Your task to perform on an android device: check storage Image 0: 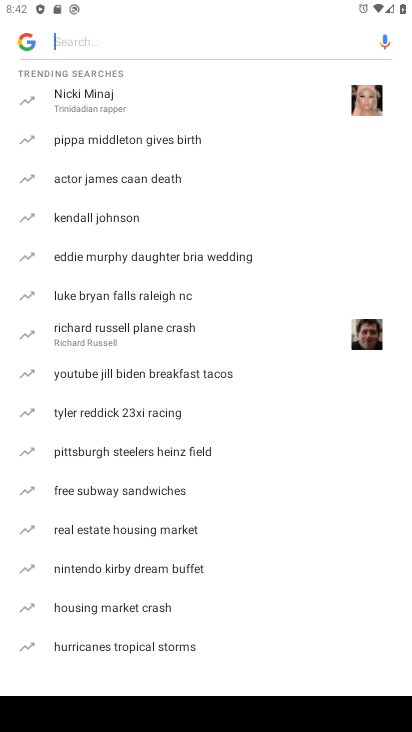
Step 0: press home button
Your task to perform on an android device: check storage Image 1: 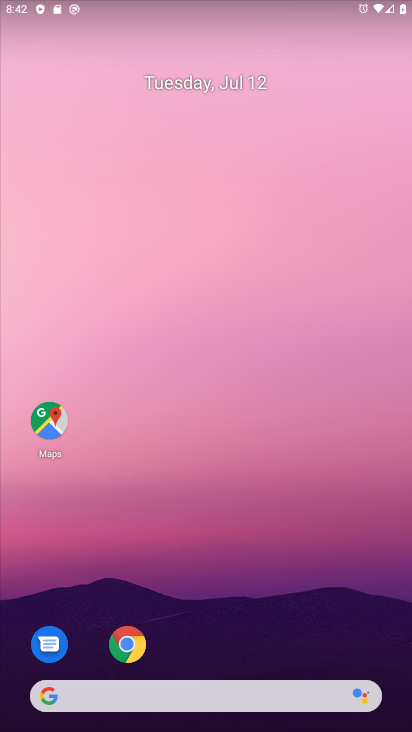
Step 1: drag from (65, 576) to (221, 153)
Your task to perform on an android device: check storage Image 2: 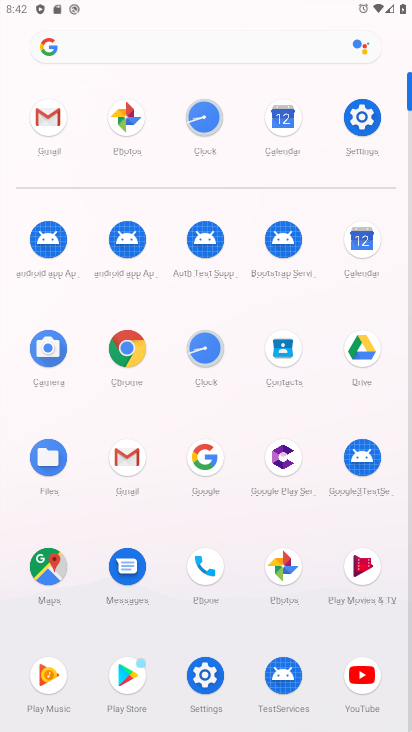
Step 2: click (197, 672)
Your task to perform on an android device: check storage Image 3: 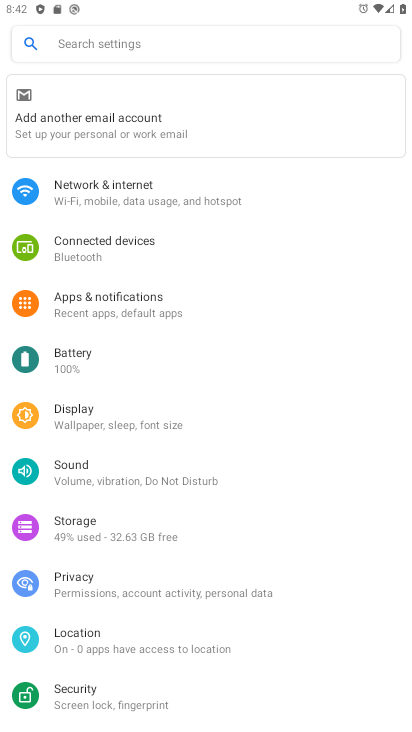
Step 3: click (110, 533)
Your task to perform on an android device: check storage Image 4: 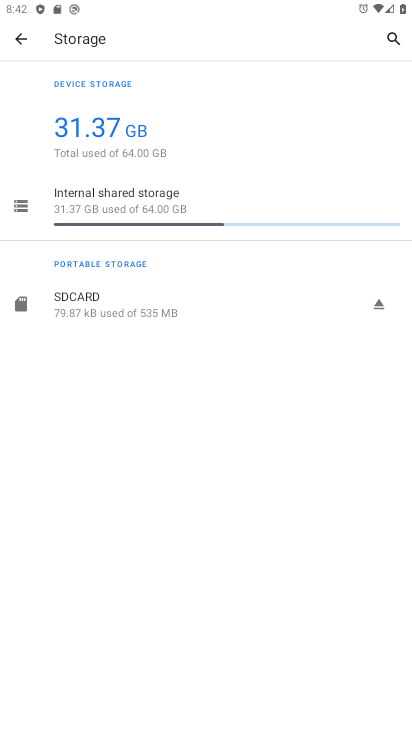
Step 4: task complete